Your task to perform on an android device: turn off sleep mode Image 0: 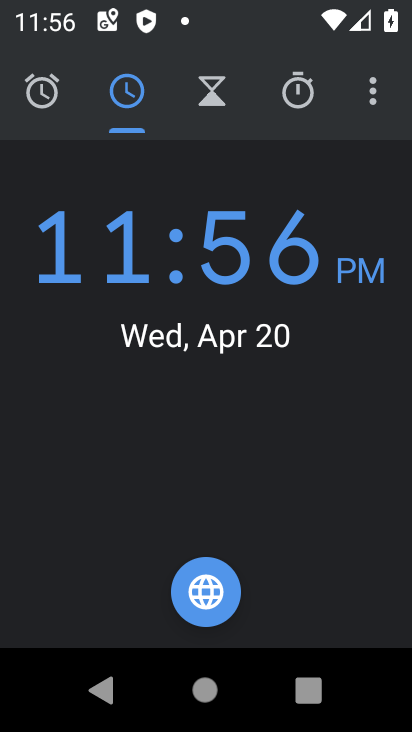
Step 0: drag from (120, 589) to (199, 209)
Your task to perform on an android device: turn off sleep mode Image 1: 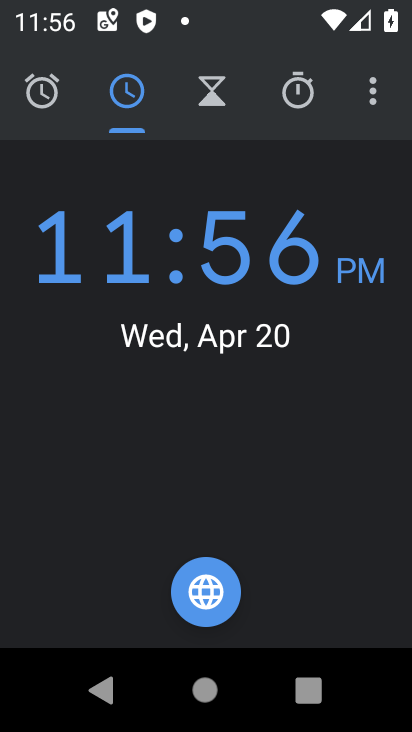
Step 1: drag from (178, 465) to (240, 220)
Your task to perform on an android device: turn off sleep mode Image 2: 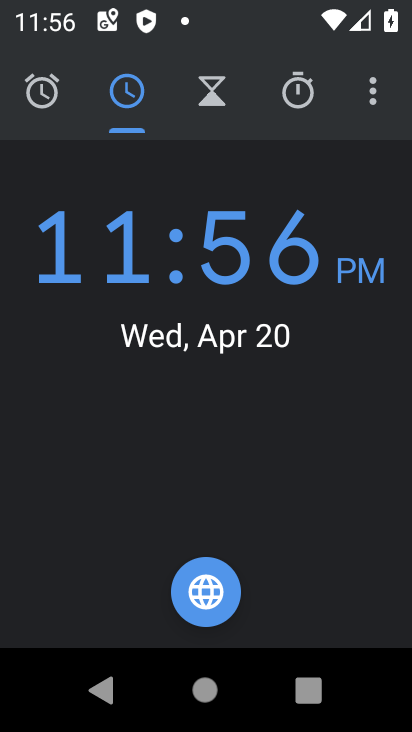
Step 2: drag from (142, 593) to (253, 217)
Your task to perform on an android device: turn off sleep mode Image 3: 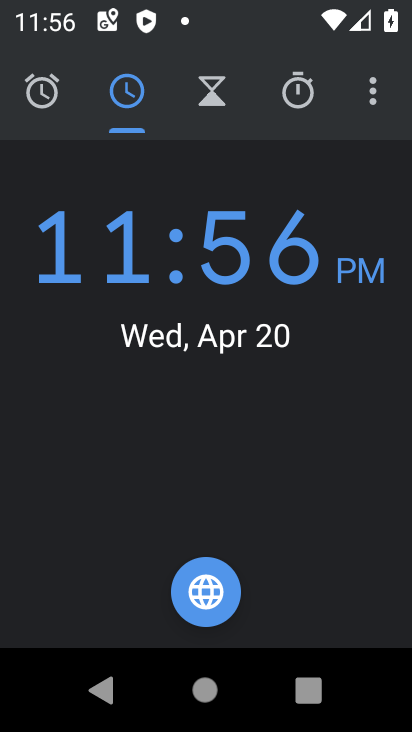
Step 3: press home button
Your task to perform on an android device: turn off sleep mode Image 4: 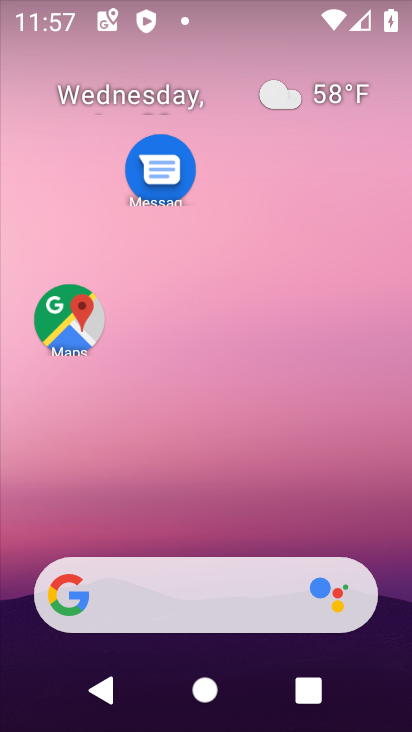
Step 4: click (263, 272)
Your task to perform on an android device: turn off sleep mode Image 5: 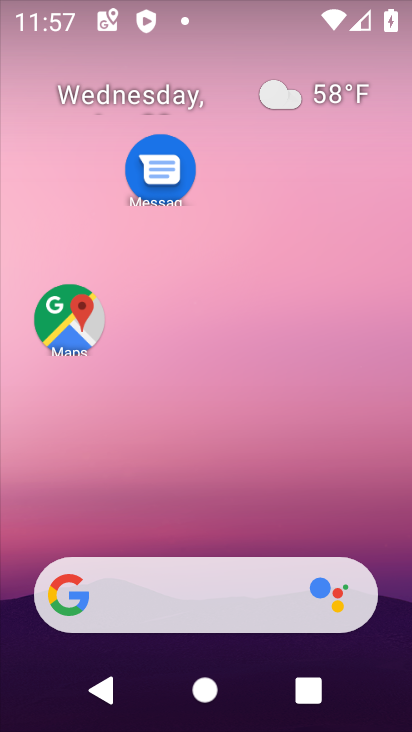
Step 5: drag from (190, 542) to (253, 137)
Your task to perform on an android device: turn off sleep mode Image 6: 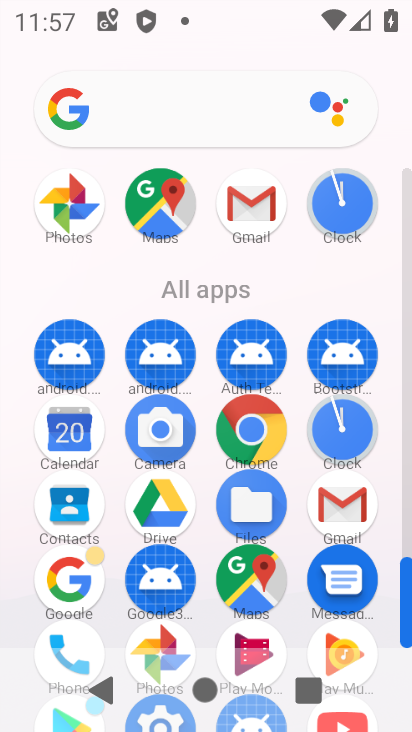
Step 6: drag from (209, 599) to (240, 194)
Your task to perform on an android device: turn off sleep mode Image 7: 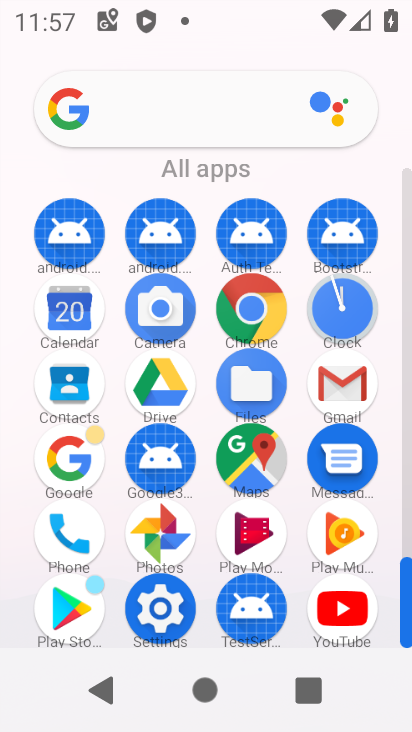
Step 7: click (188, 605)
Your task to perform on an android device: turn off sleep mode Image 8: 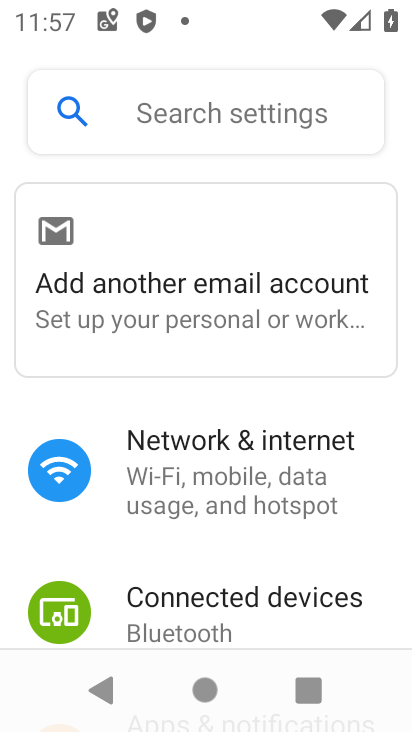
Step 8: drag from (184, 623) to (237, 128)
Your task to perform on an android device: turn off sleep mode Image 9: 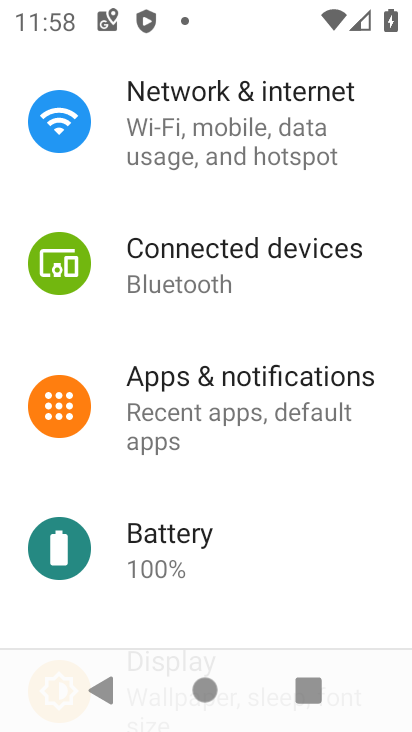
Step 9: drag from (306, 593) to (289, 321)
Your task to perform on an android device: turn off sleep mode Image 10: 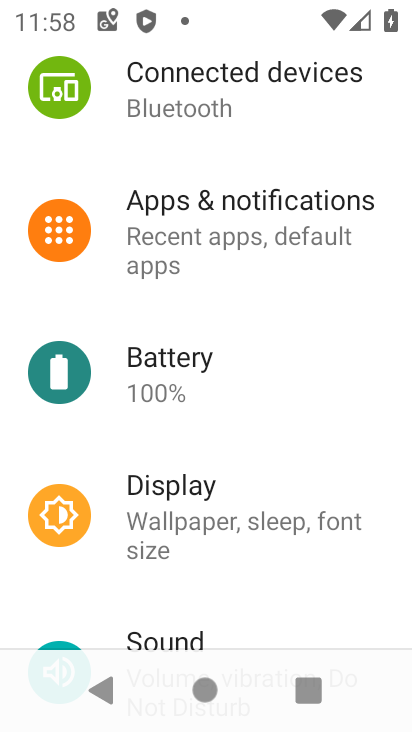
Step 10: drag from (203, 478) to (315, 10)
Your task to perform on an android device: turn off sleep mode Image 11: 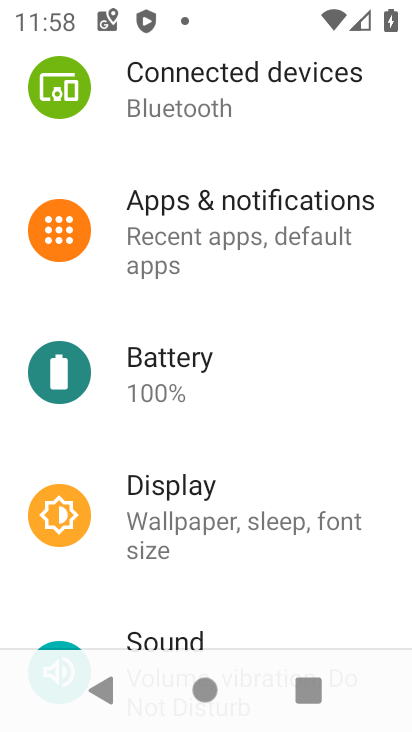
Step 11: click (303, 42)
Your task to perform on an android device: turn off sleep mode Image 12: 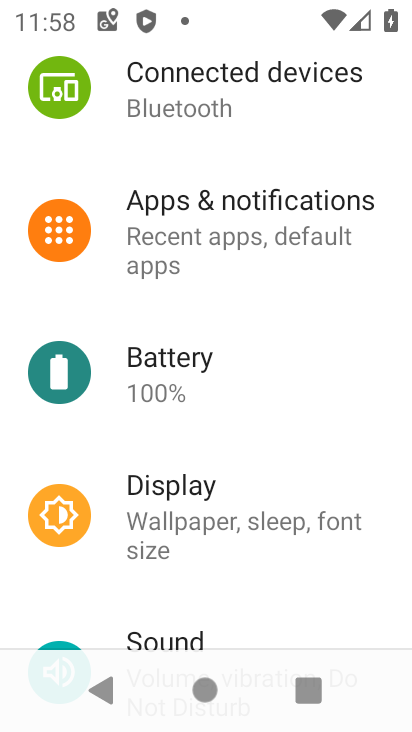
Step 12: click (202, 510)
Your task to perform on an android device: turn off sleep mode Image 13: 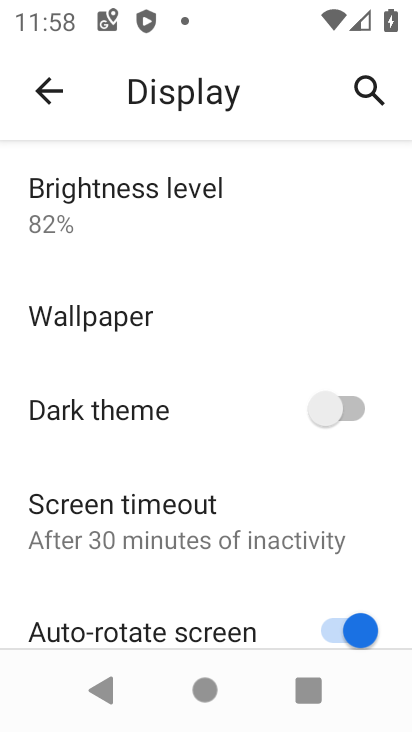
Step 13: click (155, 503)
Your task to perform on an android device: turn off sleep mode Image 14: 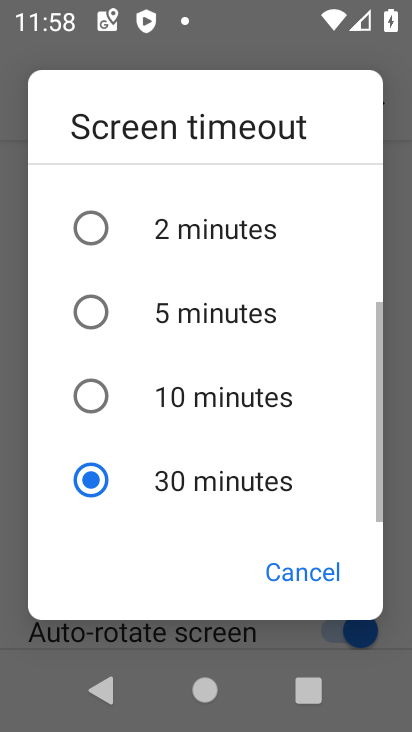
Step 14: task complete